Your task to perform on an android device: change the upload size in google photos Image 0: 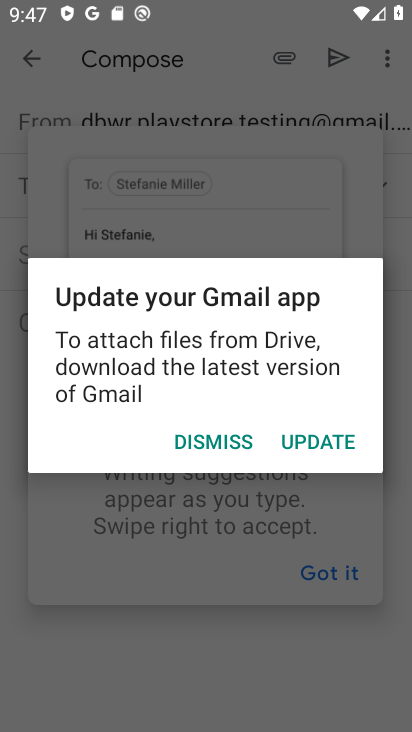
Step 0: press back button
Your task to perform on an android device: change the upload size in google photos Image 1: 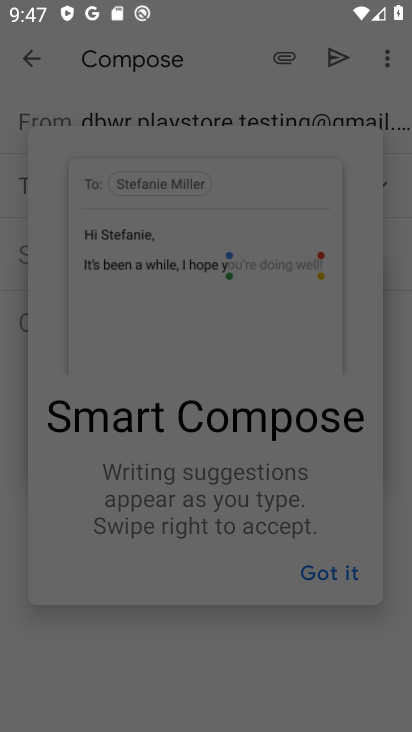
Step 1: press home button
Your task to perform on an android device: change the upload size in google photos Image 2: 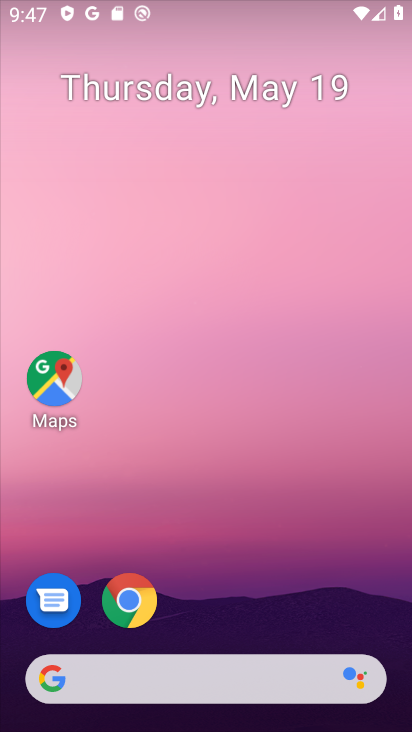
Step 2: drag from (289, 586) to (263, 36)
Your task to perform on an android device: change the upload size in google photos Image 3: 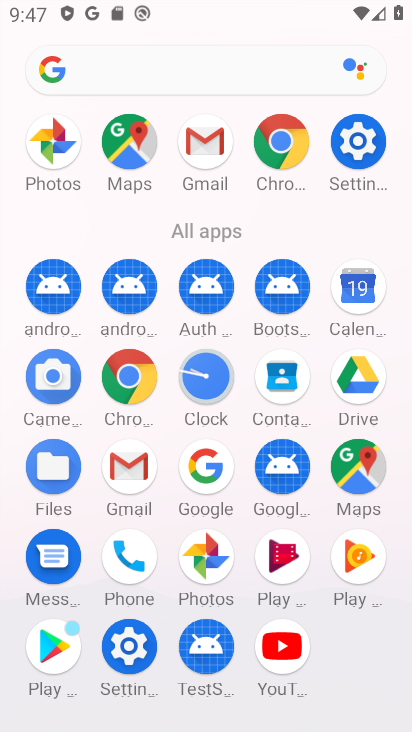
Step 3: click (201, 549)
Your task to perform on an android device: change the upload size in google photos Image 4: 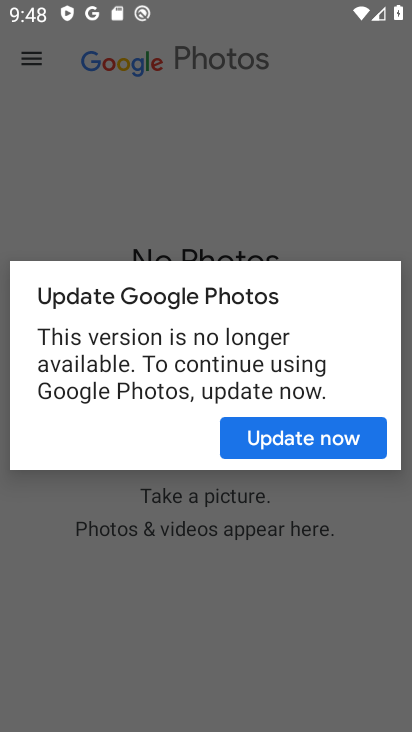
Step 4: click (281, 441)
Your task to perform on an android device: change the upload size in google photos Image 5: 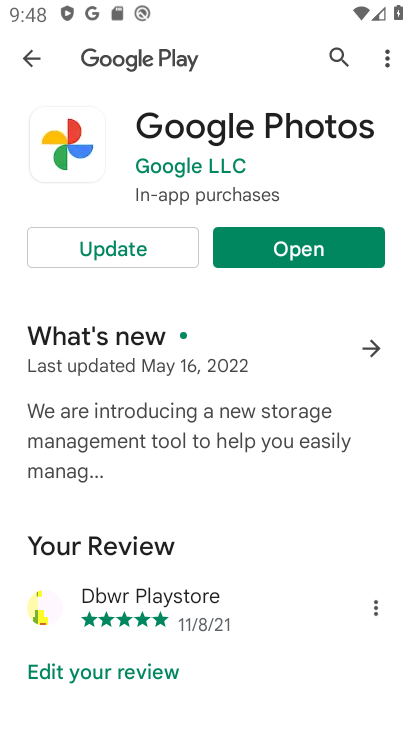
Step 5: click (148, 250)
Your task to perform on an android device: change the upload size in google photos Image 6: 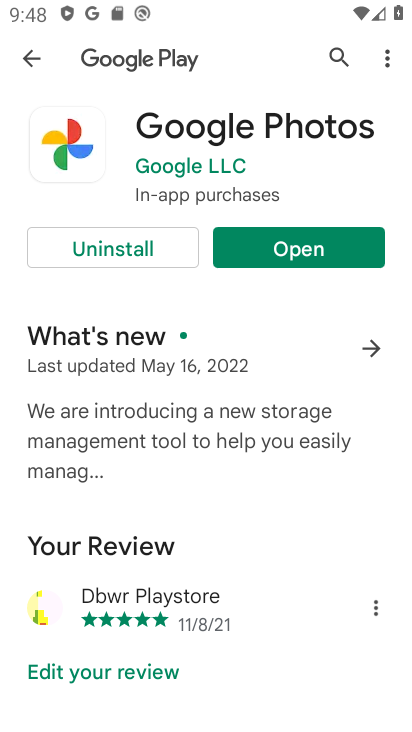
Step 6: click (289, 245)
Your task to perform on an android device: change the upload size in google photos Image 7: 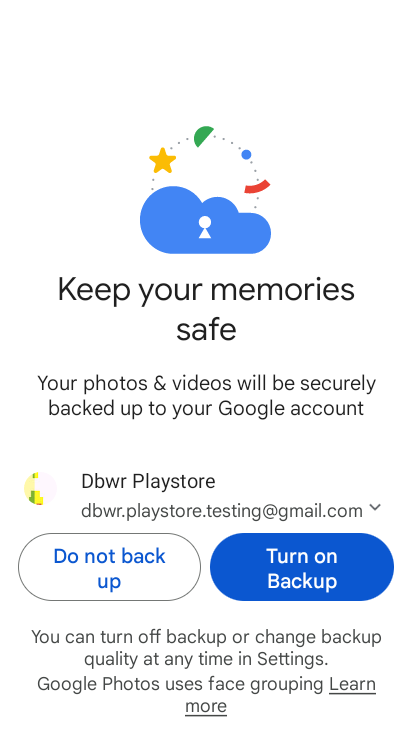
Step 7: click (293, 582)
Your task to perform on an android device: change the upload size in google photos Image 8: 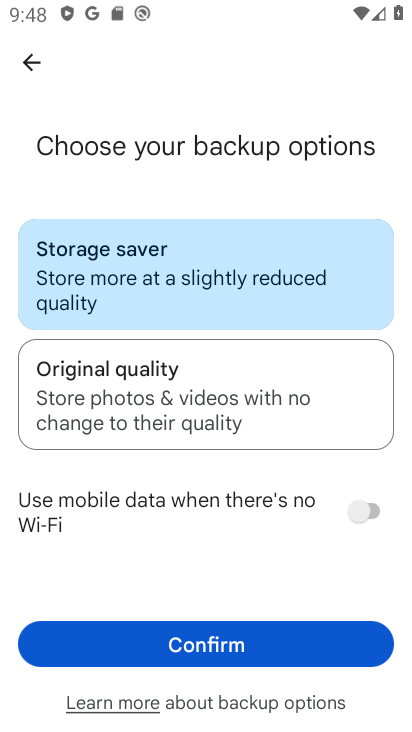
Step 8: click (243, 653)
Your task to perform on an android device: change the upload size in google photos Image 9: 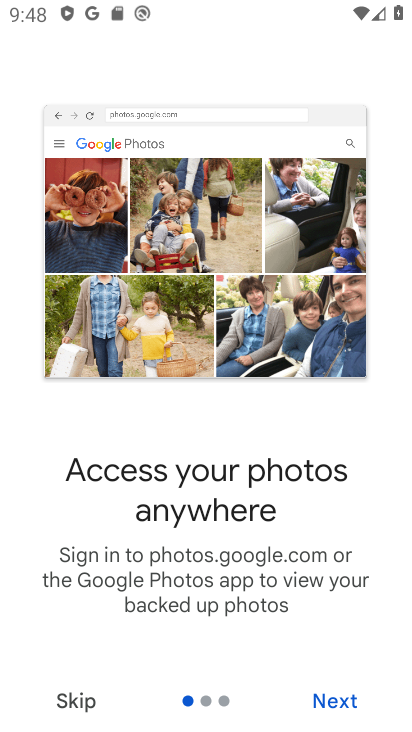
Step 9: click (357, 701)
Your task to perform on an android device: change the upload size in google photos Image 10: 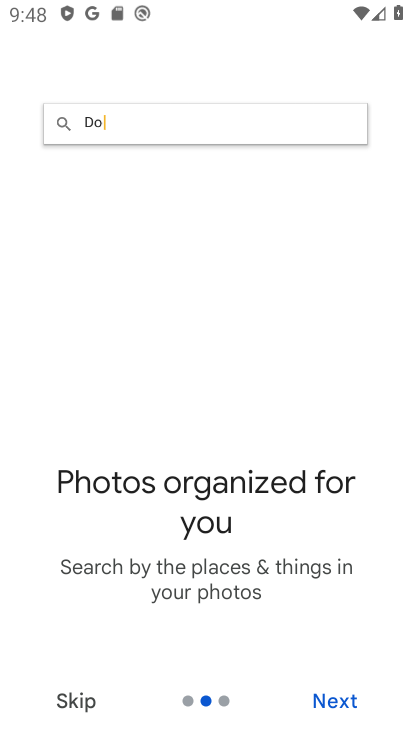
Step 10: click (355, 702)
Your task to perform on an android device: change the upload size in google photos Image 11: 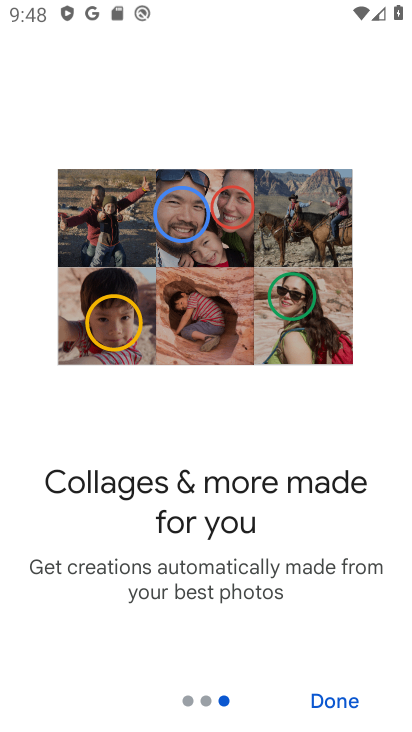
Step 11: click (355, 702)
Your task to perform on an android device: change the upload size in google photos Image 12: 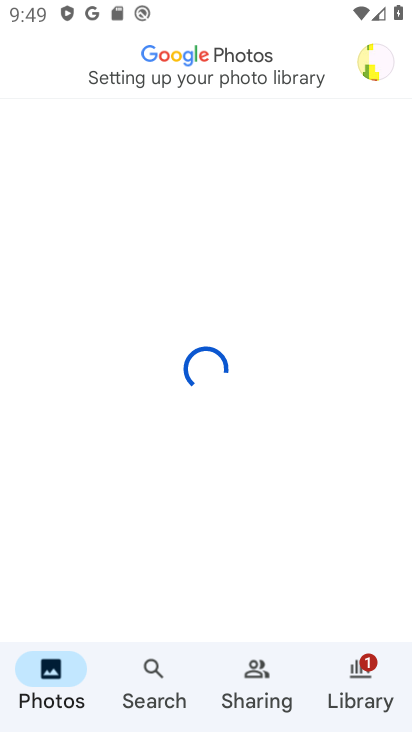
Step 12: drag from (273, 189) to (268, 581)
Your task to perform on an android device: change the upload size in google photos Image 13: 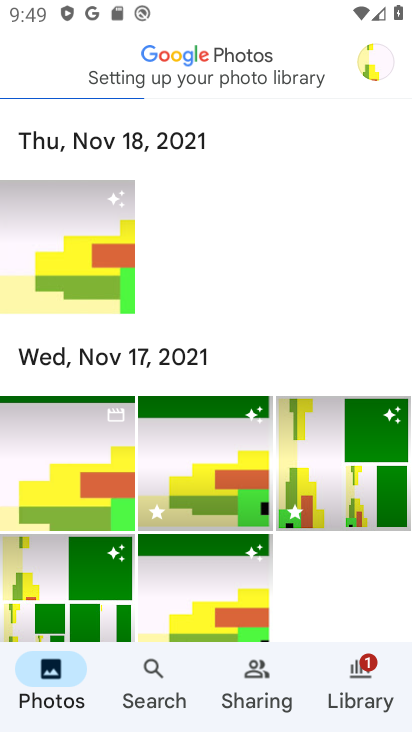
Step 13: click (369, 61)
Your task to perform on an android device: change the upload size in google photos Image 14: 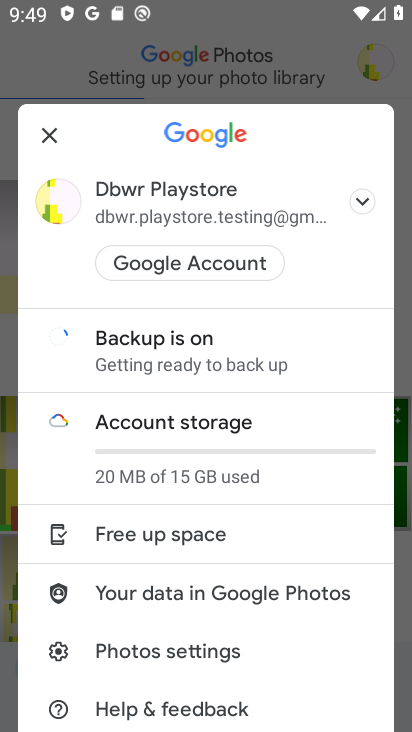
Step 14: click (197, 649)
Your task to perform on an android device: change the upload size in google photos Image 15: 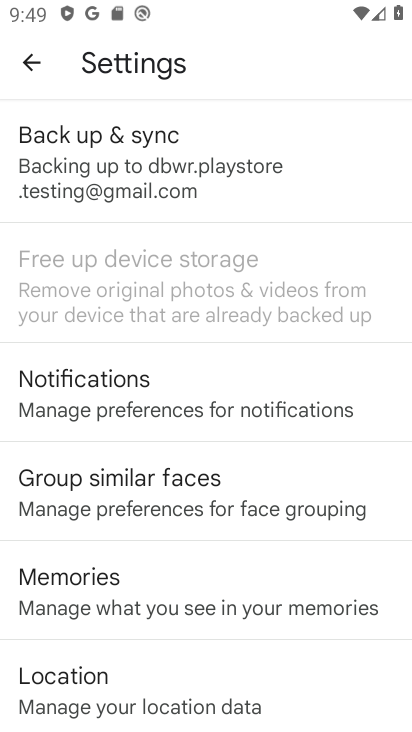
Step 15: click (194, 147)
Your task to perform on an android device: change the upload size in google photos Image 16: 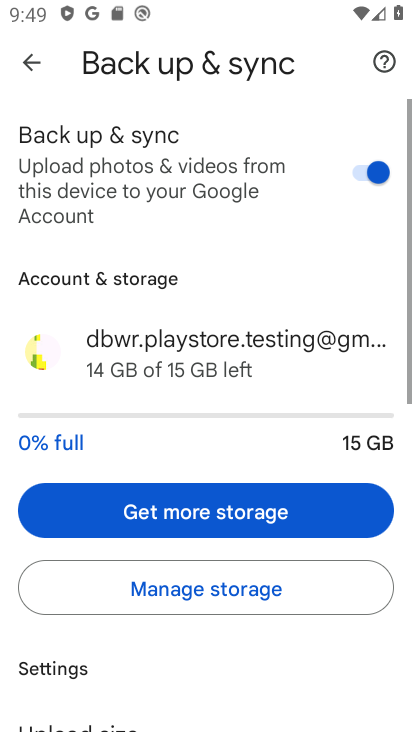
Step 16: drag from (198, 388) to (242, 85)
Your task to perform on an android device: change the upload size in google photos Image 17: 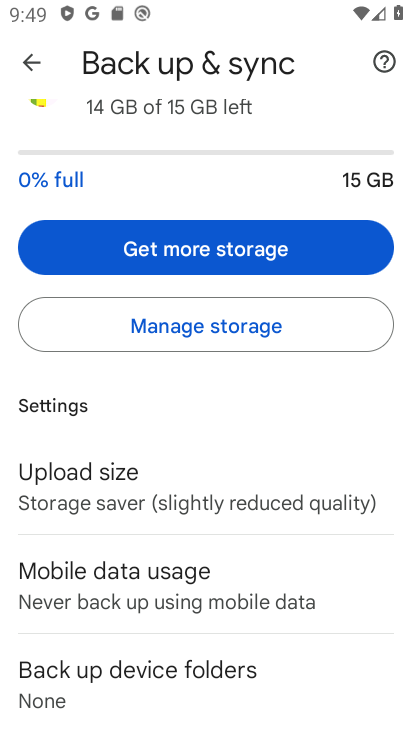
Step 17: drag from (200, 562) to (247, 179)
Your task to perform on an android device: change the upload size in google photos Image 18: 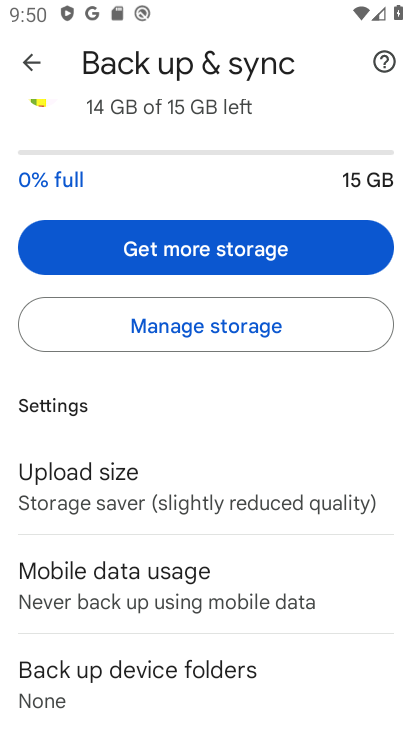
Step 18: click (191, 526)
Your task to perform on an android device: change the upload size in google photos Image 19: 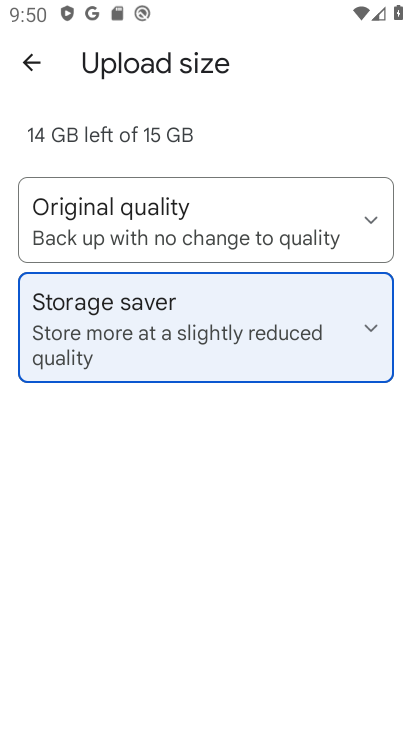
Step 19: click (206, 243)
Your task to perform on an android device: change the upload size in google photos Image 20: 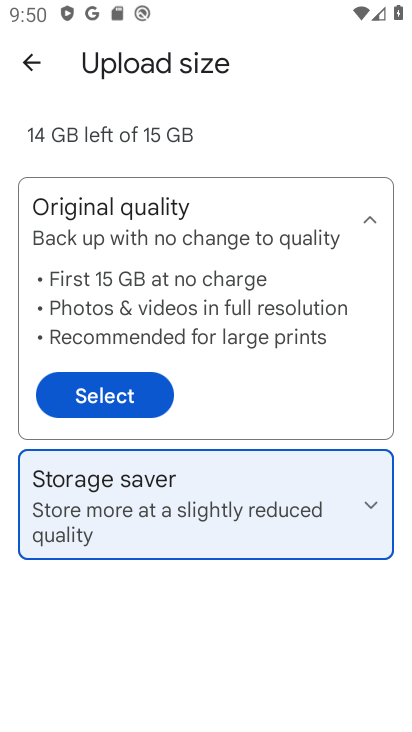
Step 20: click (120, 400)
Your task to perform on an android device: change the upload size in google photos Image 21: 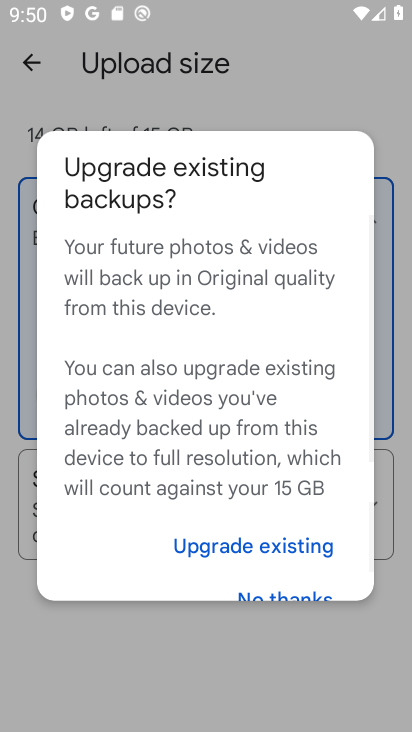
Step 21: click (254, 589)
Your task to perform on an android device: change the upload size in google photos Image 22: 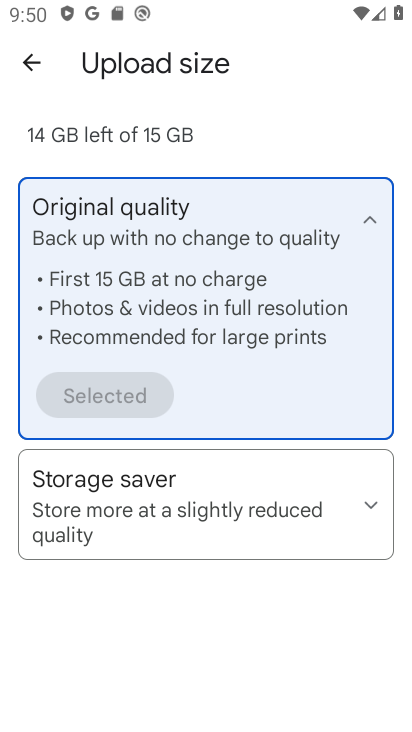
Step 22: task complete